Your task to perform on an android device: Open Google Image 0: 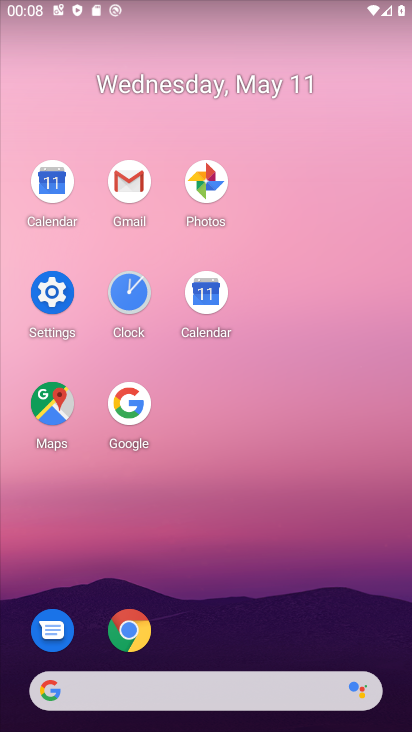
Step 0: click (125, 408)
Your task to perform on an android device: Open Google Image 1: 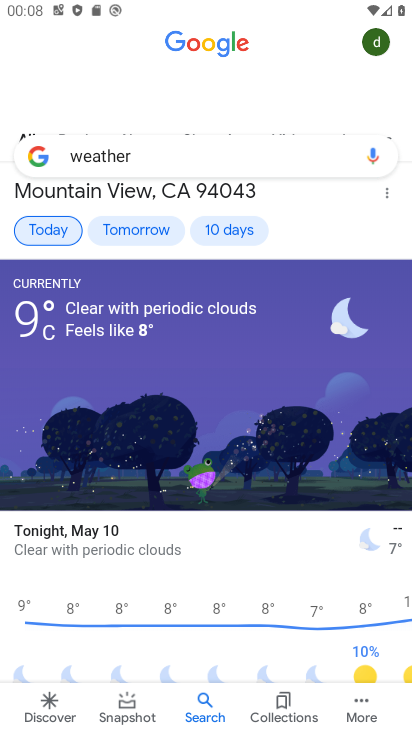
Step 1: task complete